Your task to perform on an android device: delete the emails in spam in the gmail app Image 0: 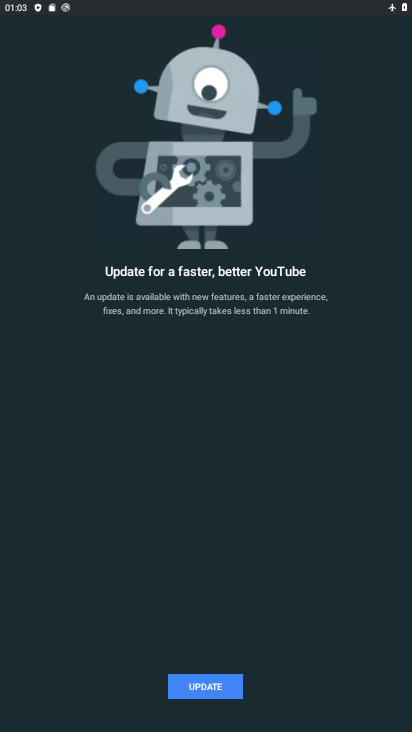
Step 0: press home button
Your task to perform on an android device: delete the emails in spam in the gmail app Image 1: 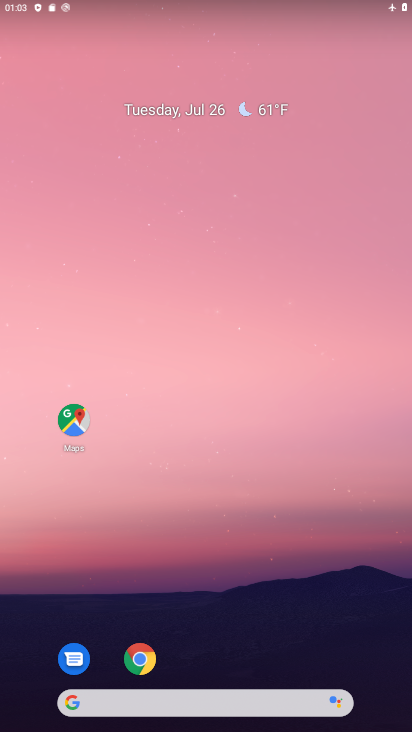
Step 1: drag from (233, 624) to (181, 19)
Your task to perform on an android device: delete the emails in spam in the gmail app Image 2: 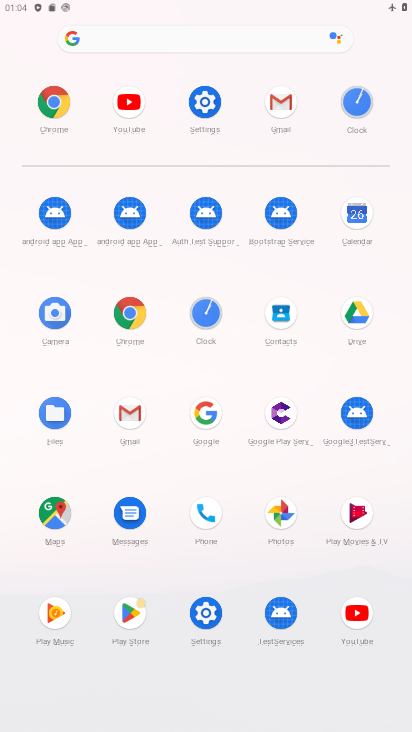
Step 2: click (289, 101)
Your task to perform on an android device: delete the emails in spam in the gmail app Image 3: 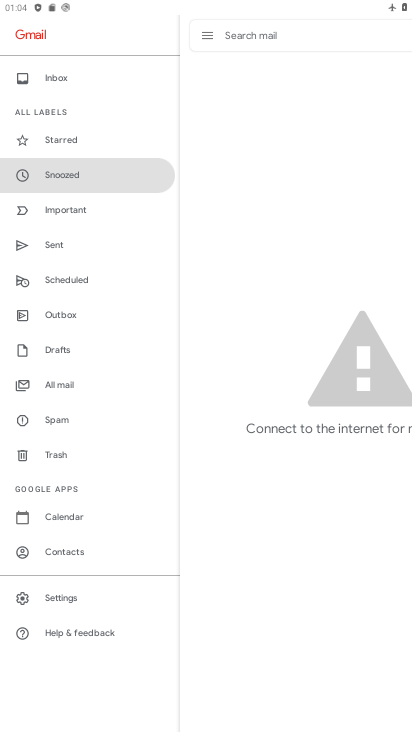
Step 3: click (62, 423)
Your task to perform on an android device: delete the emails in spam in the gmail app Image 4: 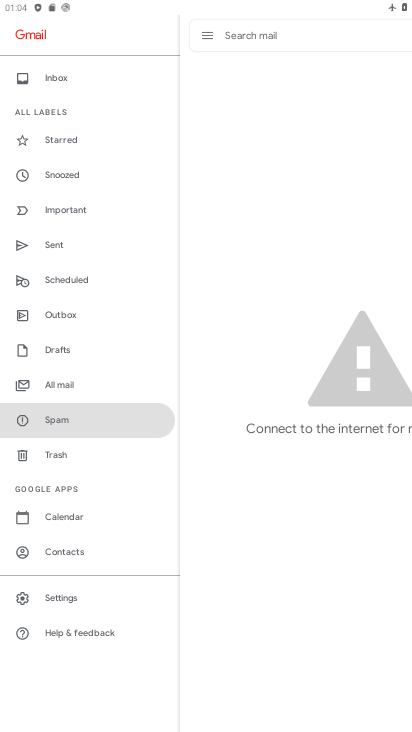
Step 4: task complete